Your task to perform on an android device: Open internet settings Image 0: 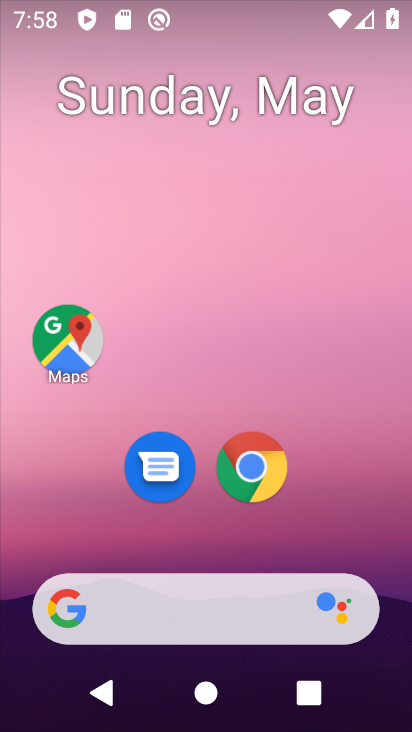
Step 0: drag from (233, 8) to (142, 608)
Your task to perform on an android device: Open internet settings Image 1: 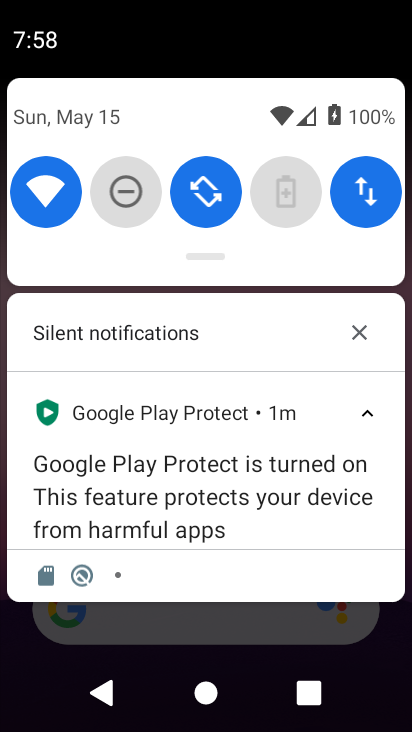
Step 1: click (357, 191)
Your task to perform on an android device: Open internet settings Image 2: 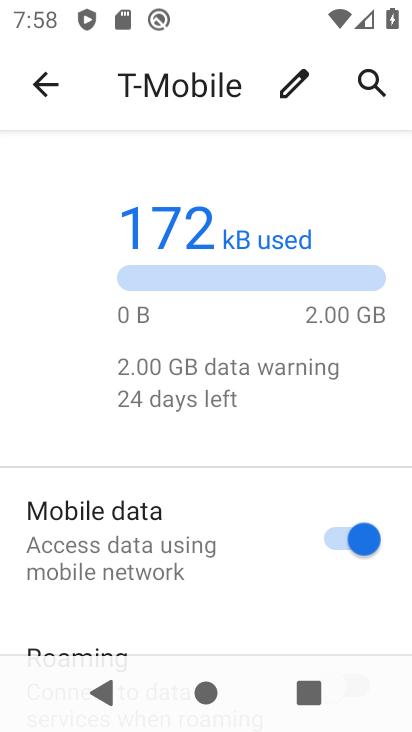
Step 2: task complete